Your task to perform on an android device: change your default location settings in chrome Image 0: 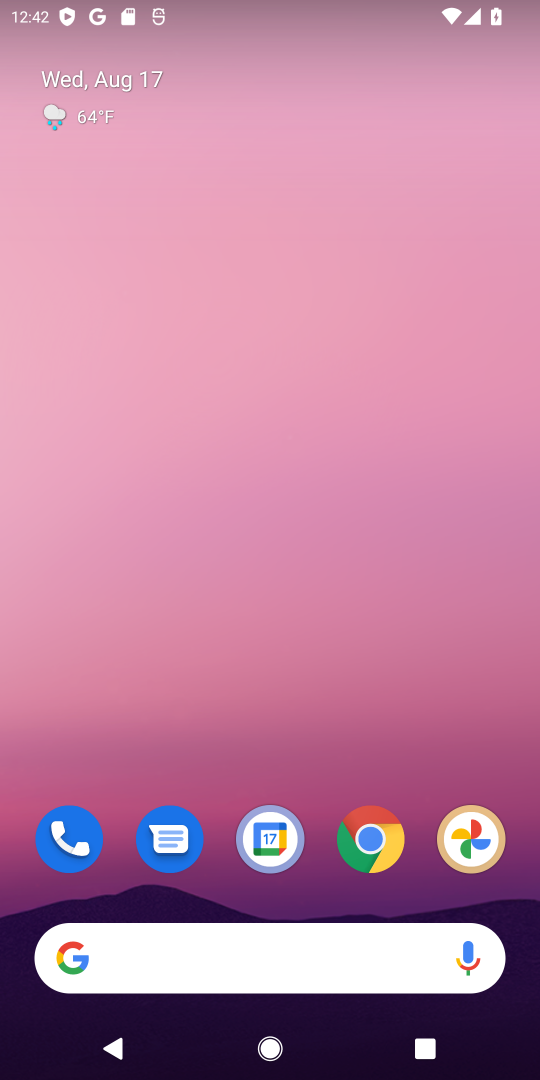
Step 0: click (373, 840)
Your task to perform on an android device: change your default location settings in chrome Image 1: 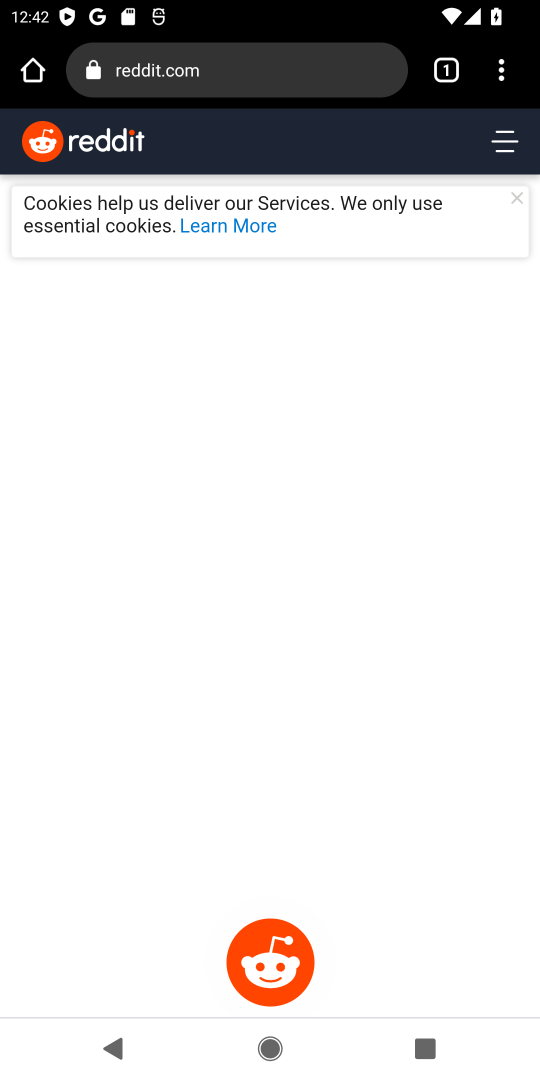
Step 1: drag from (500, 75) to (318, 884)
Your task to perform on an android device: change your default location settings in chrome Image 2: 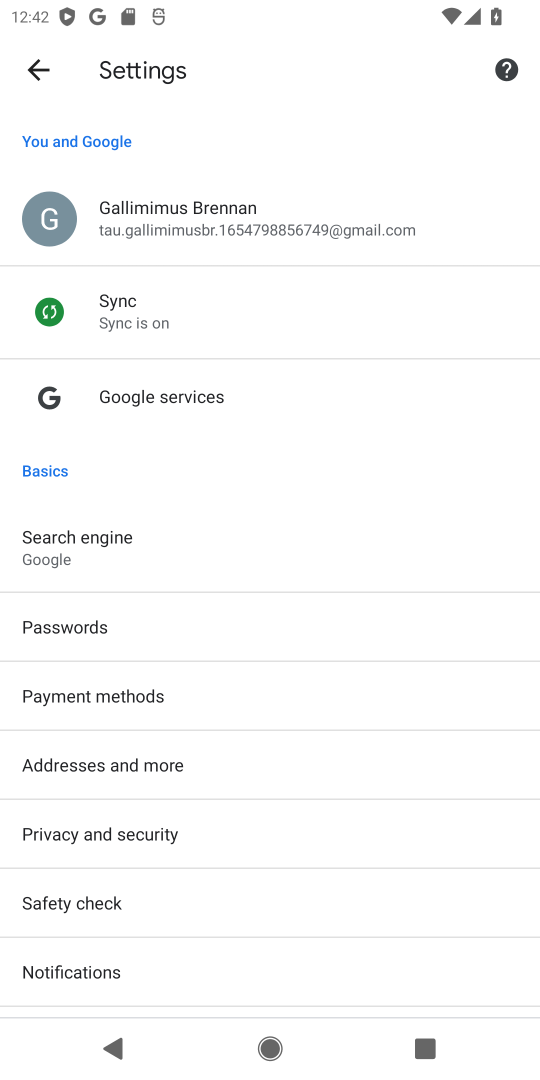
Step 2: drag from (105, 869) to (186, 558)
Your task to perform on an android device: change your default location settings in chrome Image 3: 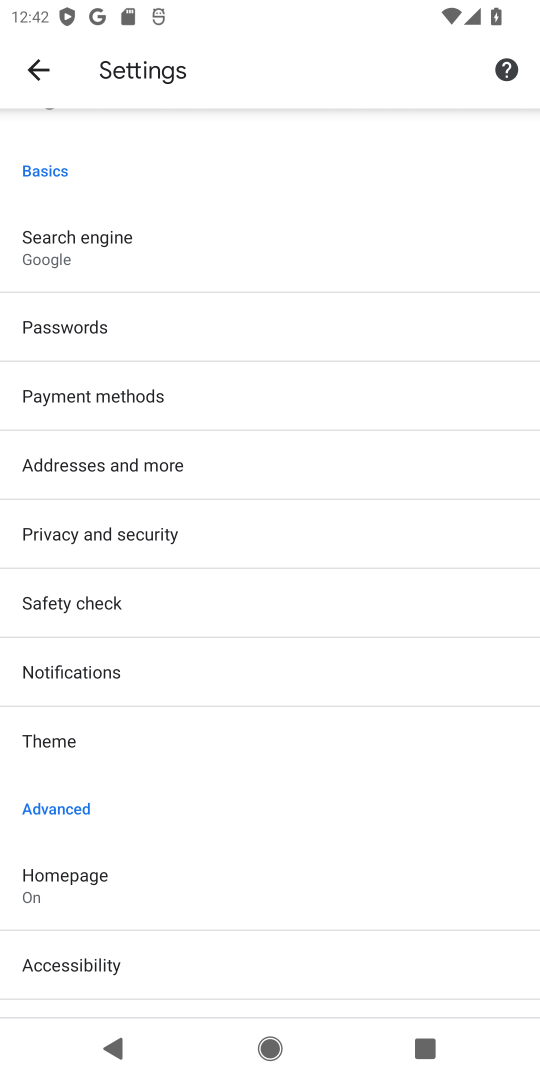
Step 3: drag from (78, 929) to (170, 747)
Your task to perform on an android device: change your default location settings in chrome Image 4: 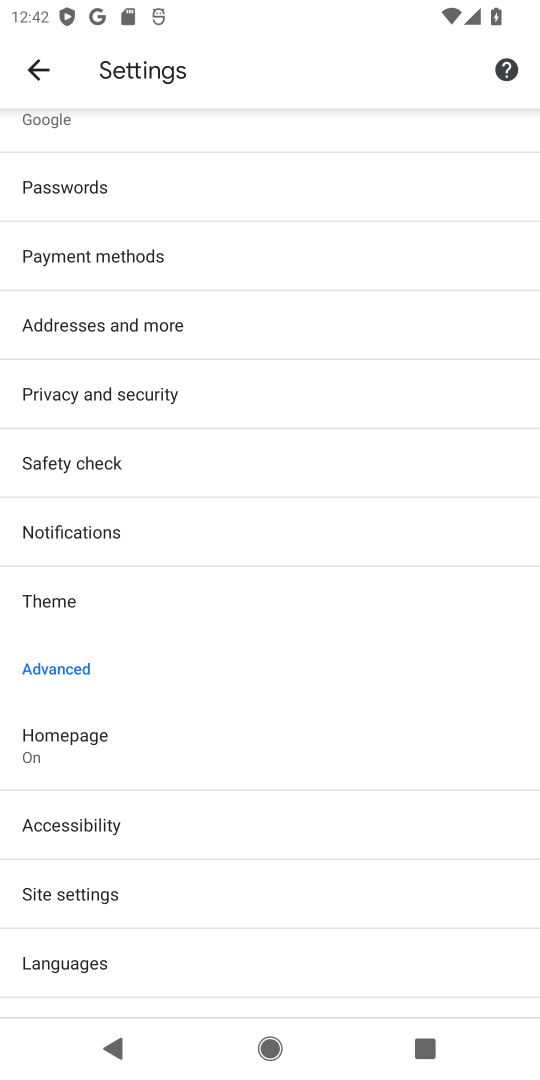
Step 4: click (99, 905)
Your task to perform on an android device: change your default location settings in chrome Image 5: 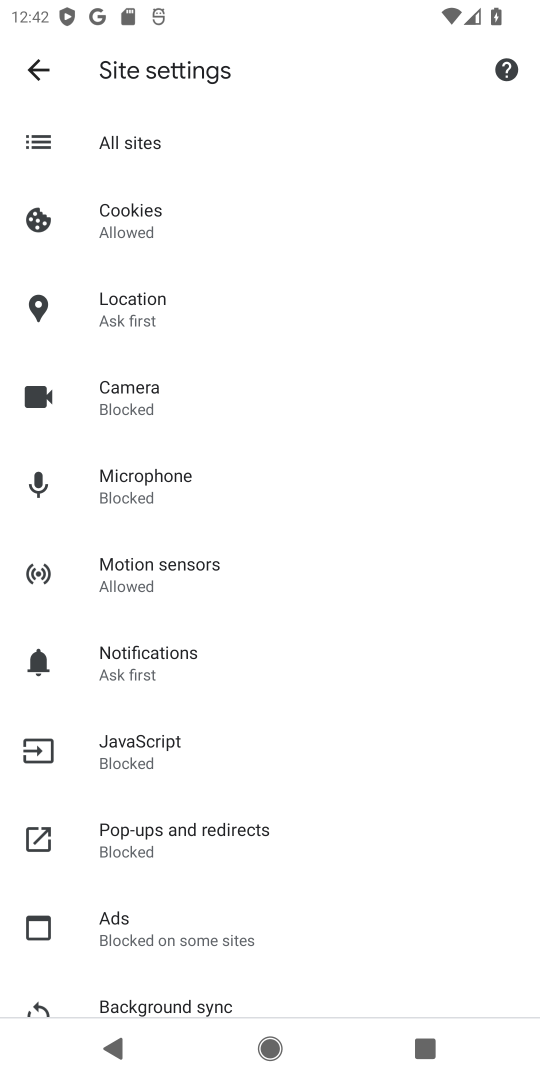
Step 5: click (157, 320)
Your task to perform on an android device: change your default location settings in chrome Image 6: 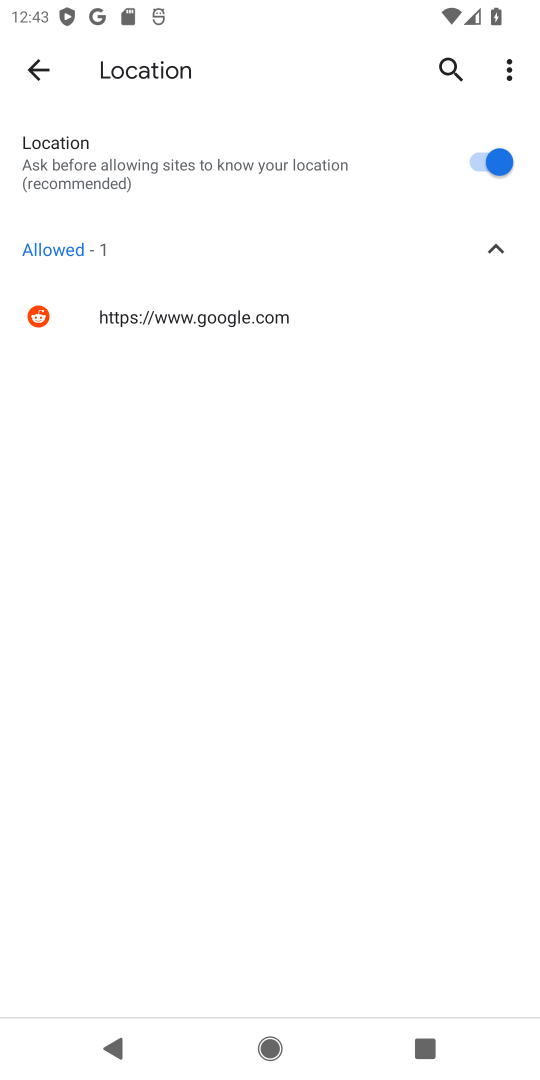
Step 6: click (474, 176)
Your task to perform on an android device: change your default location settings in chrome Image 7: 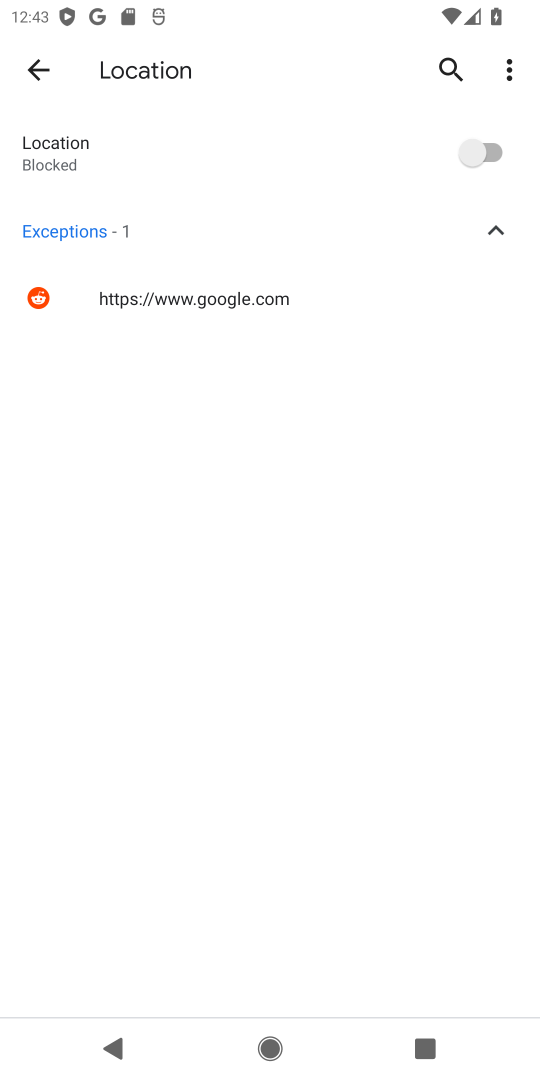
Step 7: task complete